Your task to perform on an android device: turn smart compose on in the gmail app Image 0: 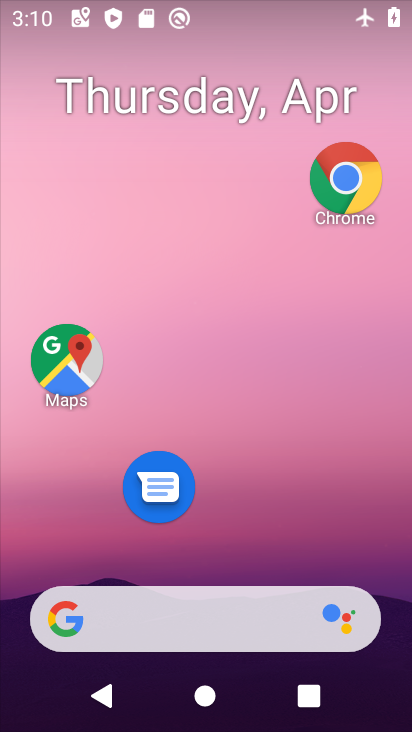
Step 0: drag from (238, 525) to (239, 0)
Your task to perform on an android device: turn smart compose on in the gmail app Image 1: 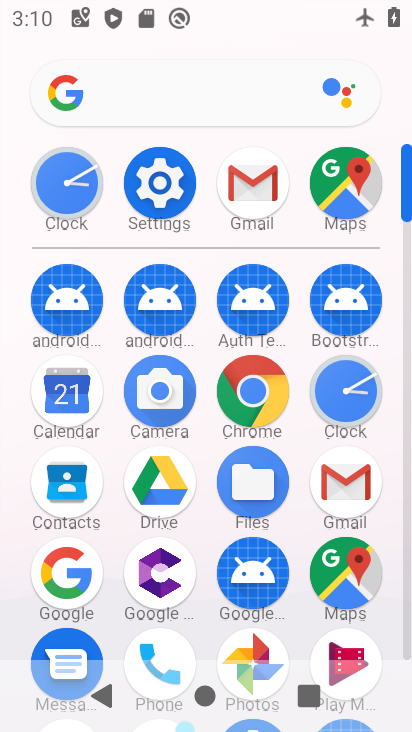
Step 1: click (343, 490)
Your task to perform on an android device: turn smart compose on in the gmail app Image 2: 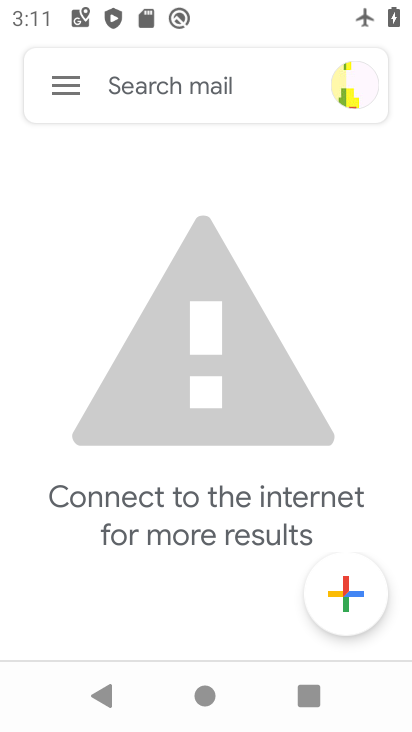
Step 2: click (68, 93)
Your task to perform on an android device: turn smart compose on in the gmail app Image 3: 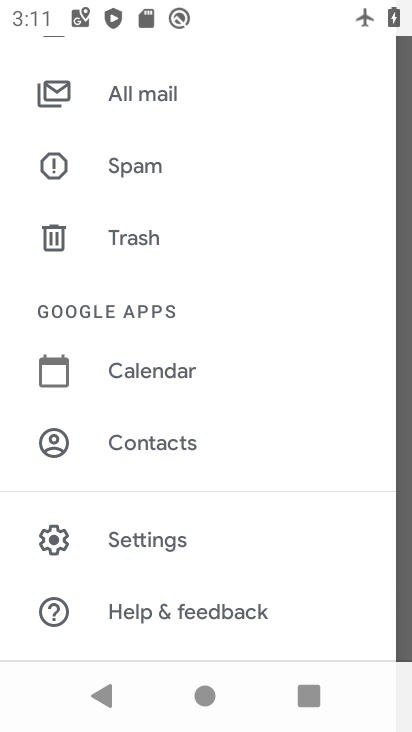
Step 3: click (182, 548)
Your task to perform on an android device: turn smart compose on in the gmail app Image 4: 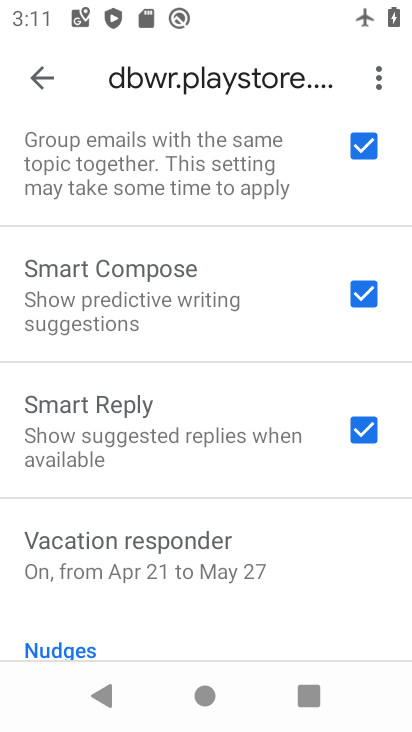
Step 4: task complete